Your task to perform on an android device: turn on bluetooth scan Image 0: 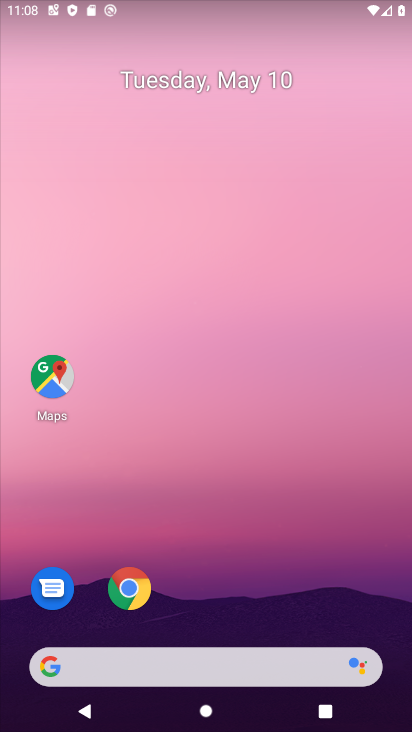
Step 0: drag from (228, 594) to (48, 100)
Your task to perform on an android device: turn on bluetooth scan Image 1: 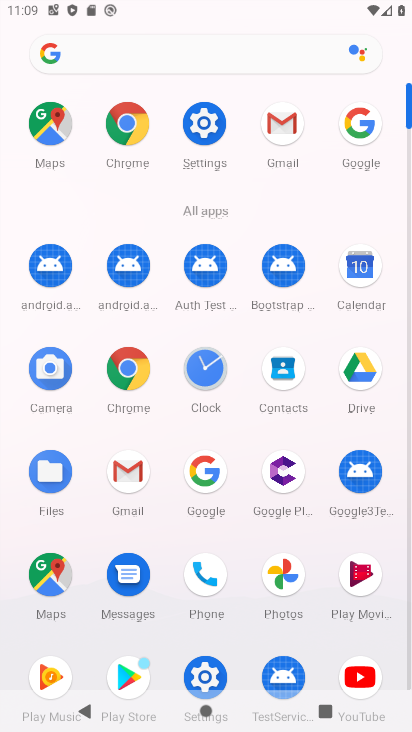
Step 1: click (208, 670)
Your task to perform on an android device: turn on bluetooth scan Image 2: 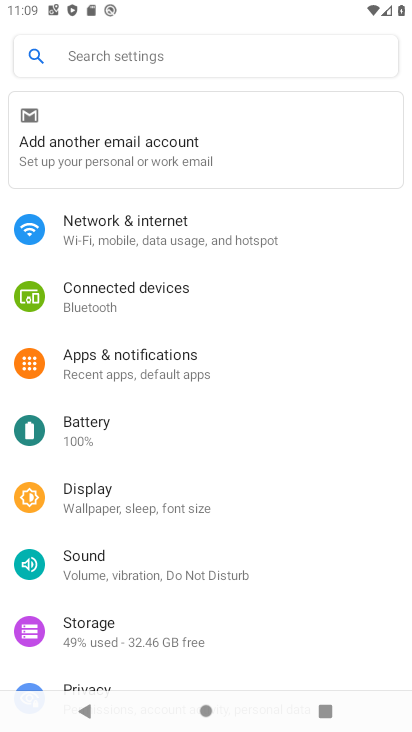
Step 2: drag from (166, 555) to (138, 228)
Your task to perform on an android device: turn on bluetooth scan Image 3: 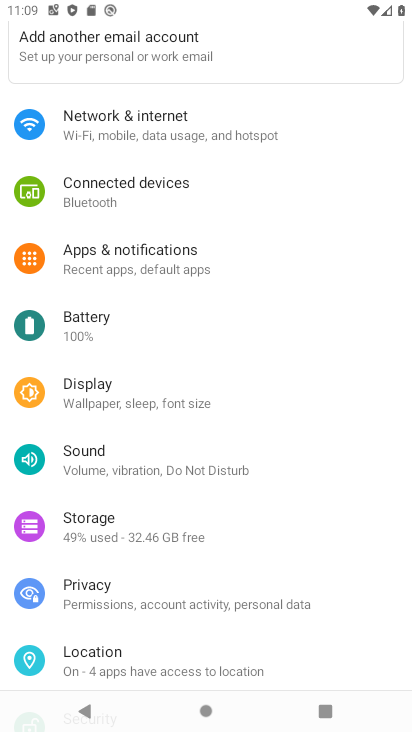
Step 3: click (127, 655)
Your task to perform on an android device: turn on bluetooth scan Image 4: 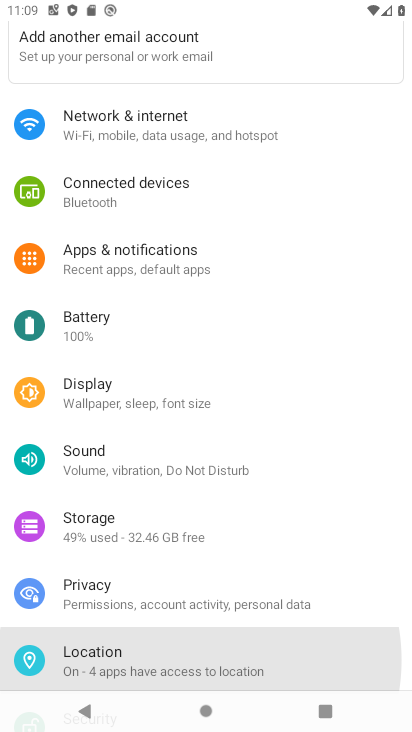
Step 4: click (128, 655)
Your task to perform on an android device: turn on bluetooth scan Image 5: 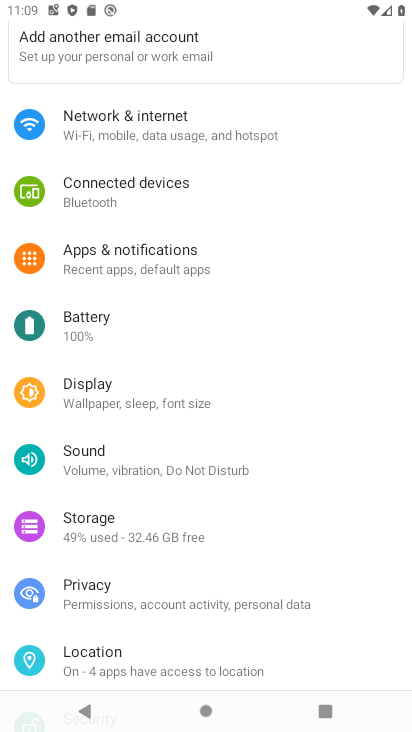
Step 5: click (128, 655)
Your task to perform on an android device: turn on bluetooth scan Image 6: 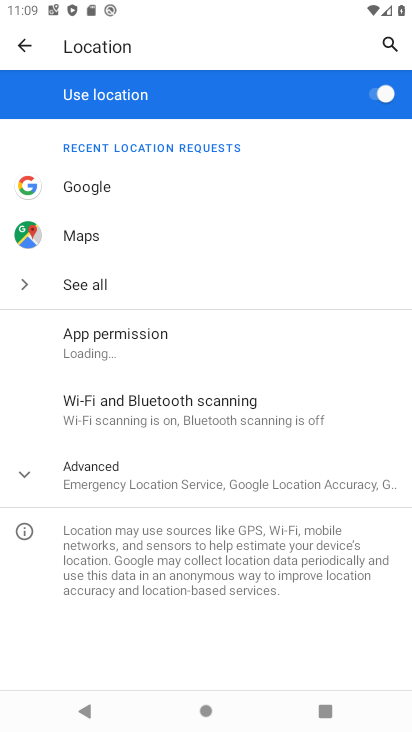
Step 6: click (94, 340)
Your task to perform on an android device: turn on bluetooth scan Image 7: 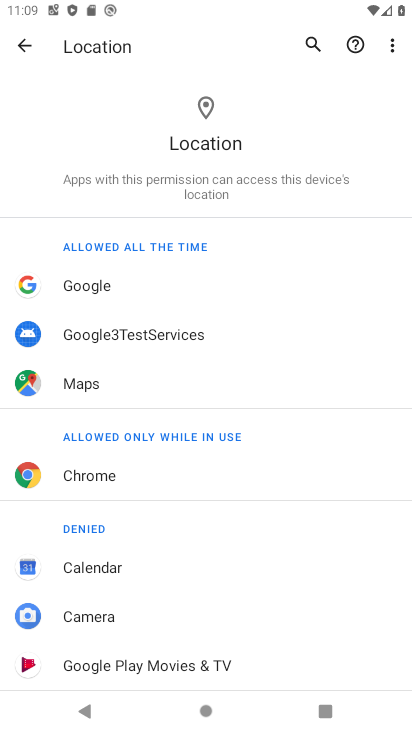
Step 7: click (24, 47)
Your task to perform on an android device: turn on bluetooth scan Image 8: 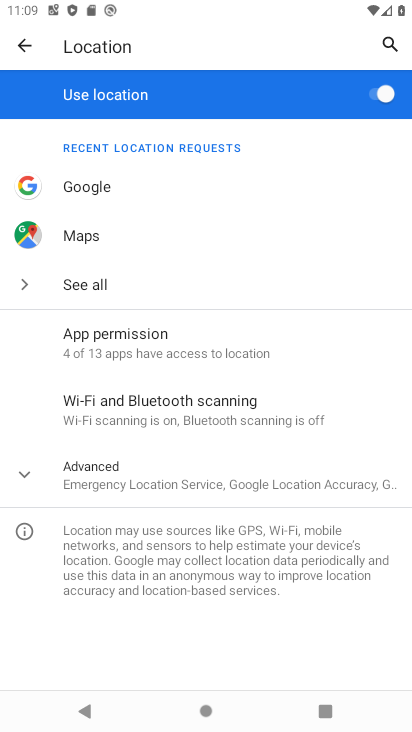
Step 8: click (131, 408)
Your task to perform on an android device: turn on bluetooth scan Image 9: 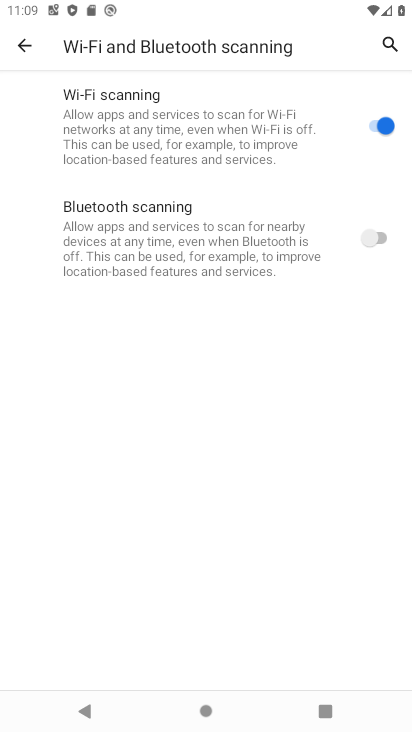
Step 9: click (365, 235)
Your task to perform on an android device: turn on bluetooth scan Image 10: 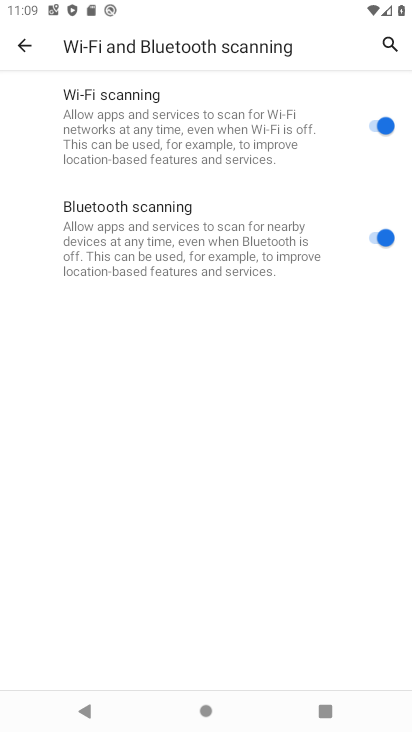
Step 10: task complete